Your task to perform on an android device: Clear all items from cart on bestbuy.com. Search for energizer triple a on bestbuy.com, select the first entry, add it to the cart, then select checkout. Image 0: 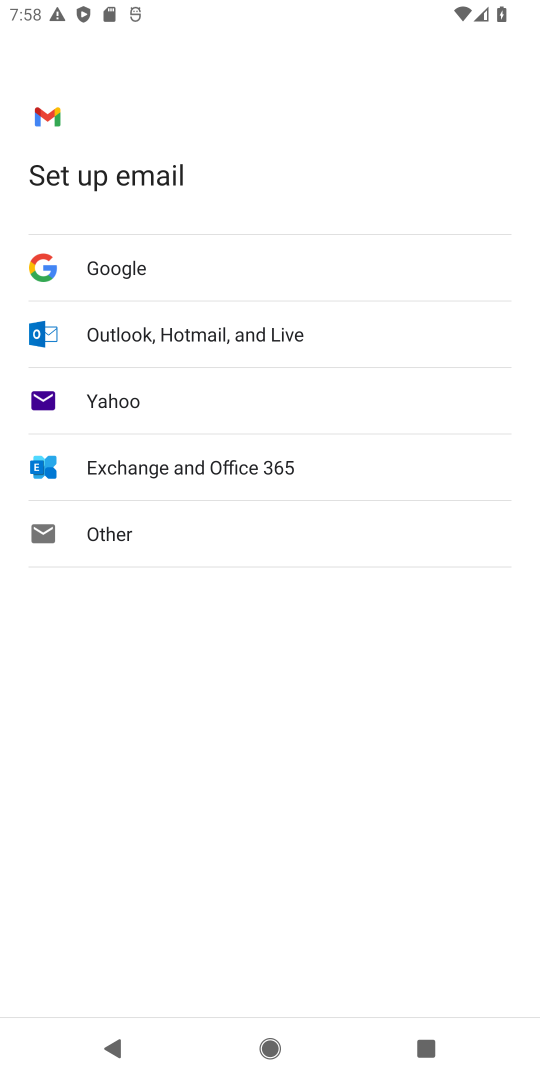
Step 0: press home button
Your task to perform on an android device: Clear all items from cart on bestbuy.com. Search for energizer triple a on bestbuy.com, select the first entry, add it to the cart, then select checkout. Image 1: 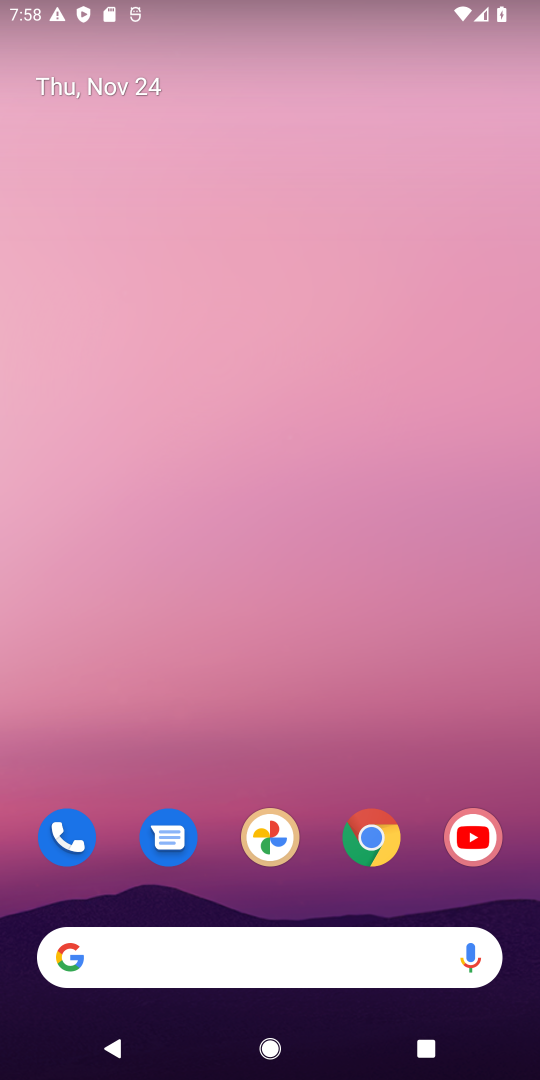
Step 1: click (387, 820)
Your task to perform on an android device: Clear all items from cart on bestbuy.com. Search for energizer triple a on bestbuy.com, select the first entry, add it to the cart, then select checkout. Image 2: 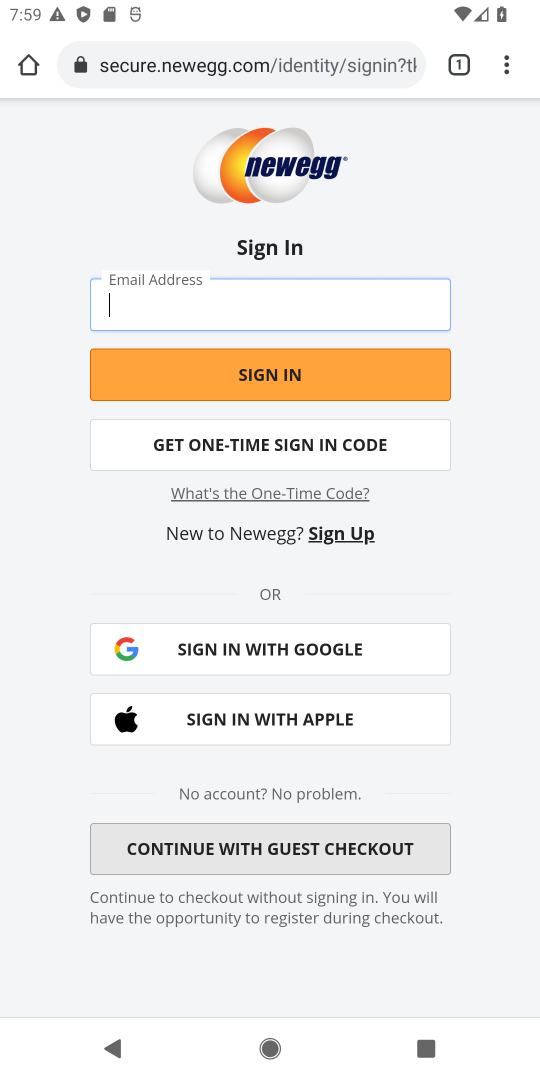
Step 2: press home button
Your task to perform on an android device: Clear all items from cart on bestbuy.com. Search for energizer triple a on bestbuy.com, select the first entry, add it to the cart, then select checkout. Image 3: 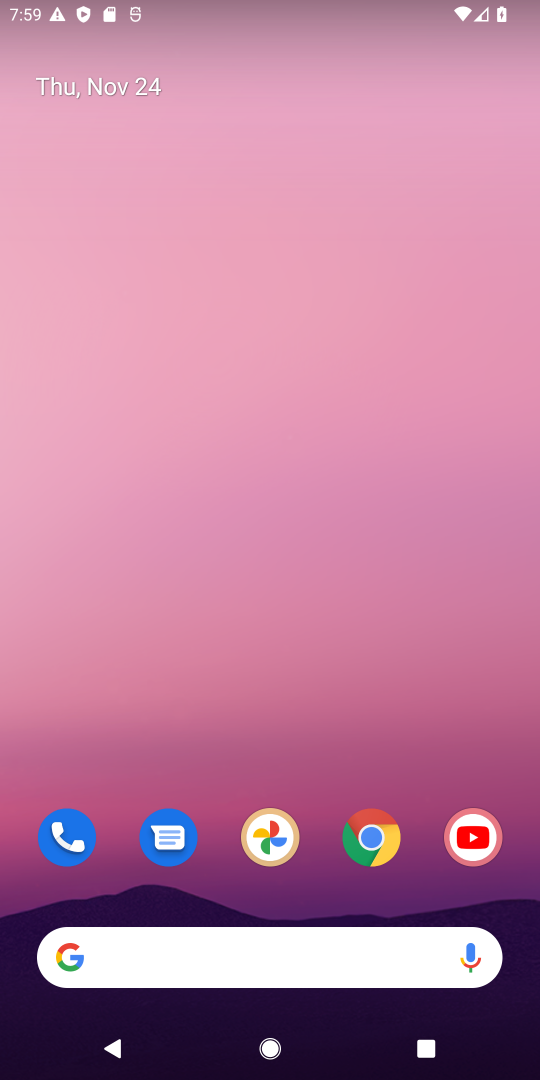
Step 3: click (376, 835)
Your task to perform on an android device: Clear all items from cart on bestbuy.com. Search for energizer triple a on bestbuy.com, select the first entry, add it to the cart, then select checkout. Image 4: 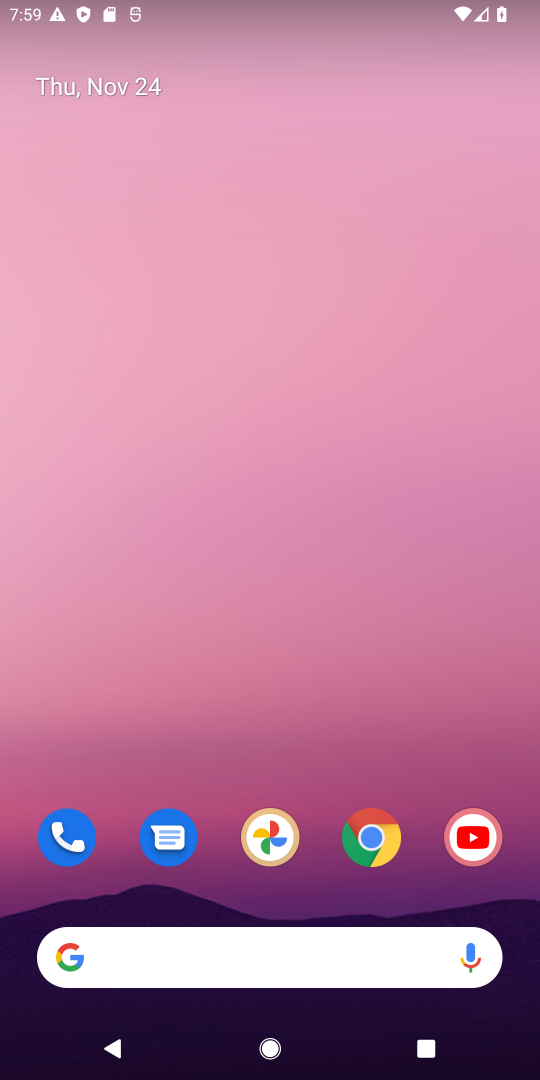
Step 4: click (376, 825)
Your task to perform on an android device: Clear all items from cart on bestbuy.com. Search for energizer triple a on bestbuy.com, select the first entry, add it to the cart, then select checkout. Image 5: 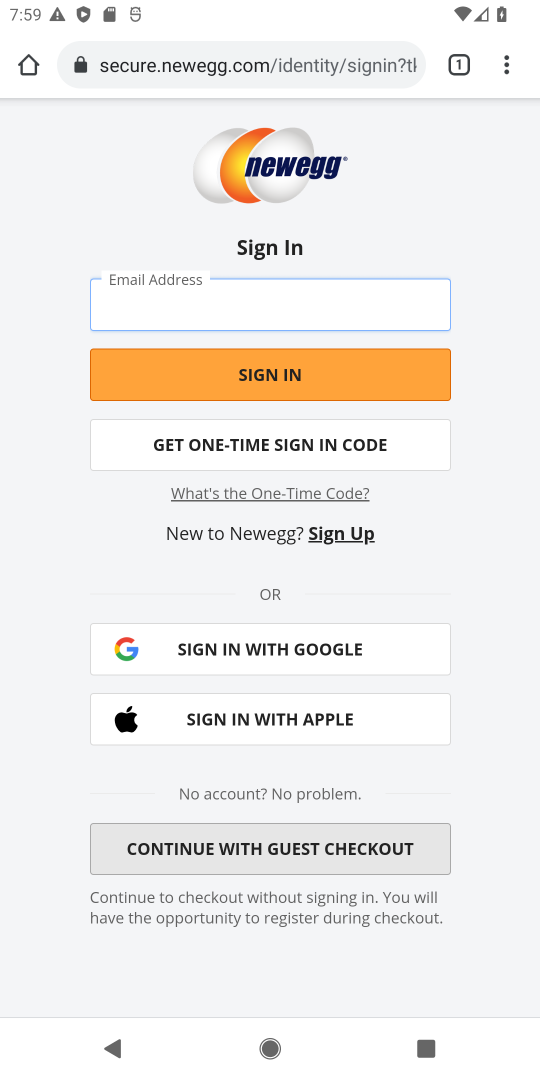
Step 5: click (271, 59)
Your task to perform on an android device: Clear all items from cart on bestbuy.com. Search for energizer triple a on bestbuy.com, select the first entry, add it to the cart, then select checkout. Image 6: 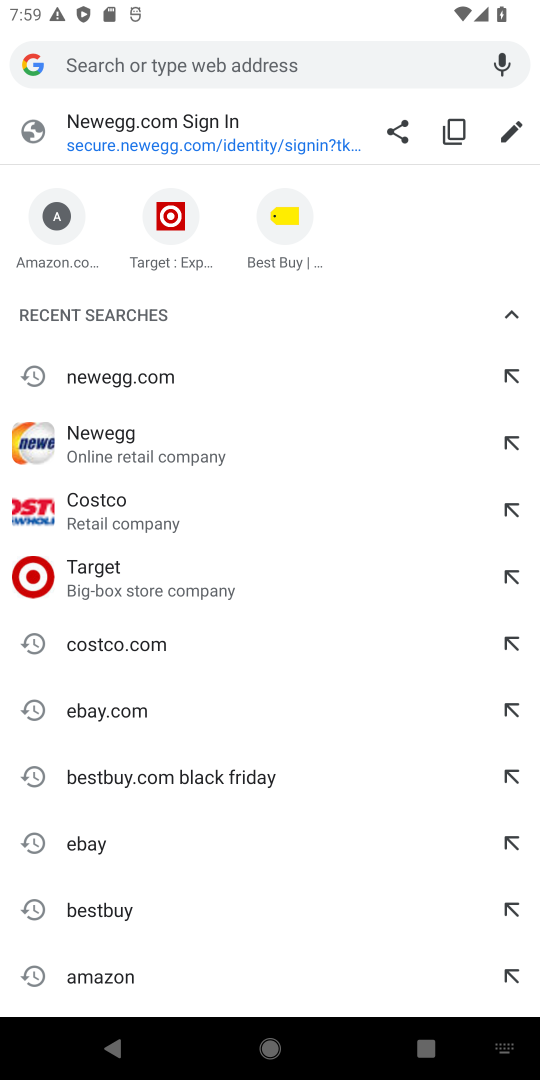
Step 6: type "bestbuy.com"
Your task to perform on an android device: Clear all items from cart on bestbuy.com. Search for energizer triple a on bestbuy.com, select the first entry, add it to the cart, then select checkout. Image 7: 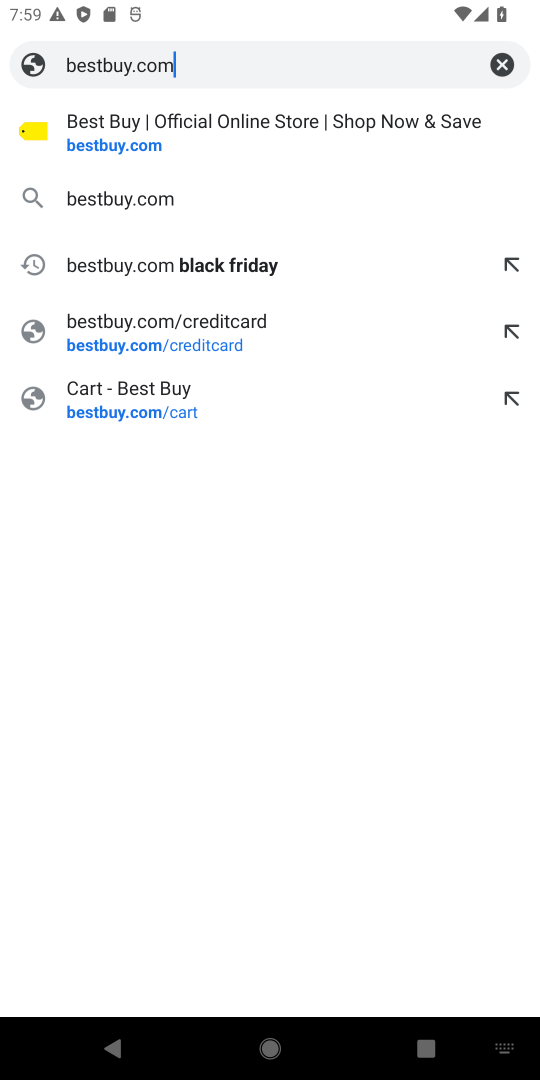
Step 7: click (177, 139)
Your task to perform on an android device: Clear all items from cart on bestbuy.com. Search for energizer triple a on bestbuy.com, select the first entry, add it to the cart, then select checkout. Image 8: 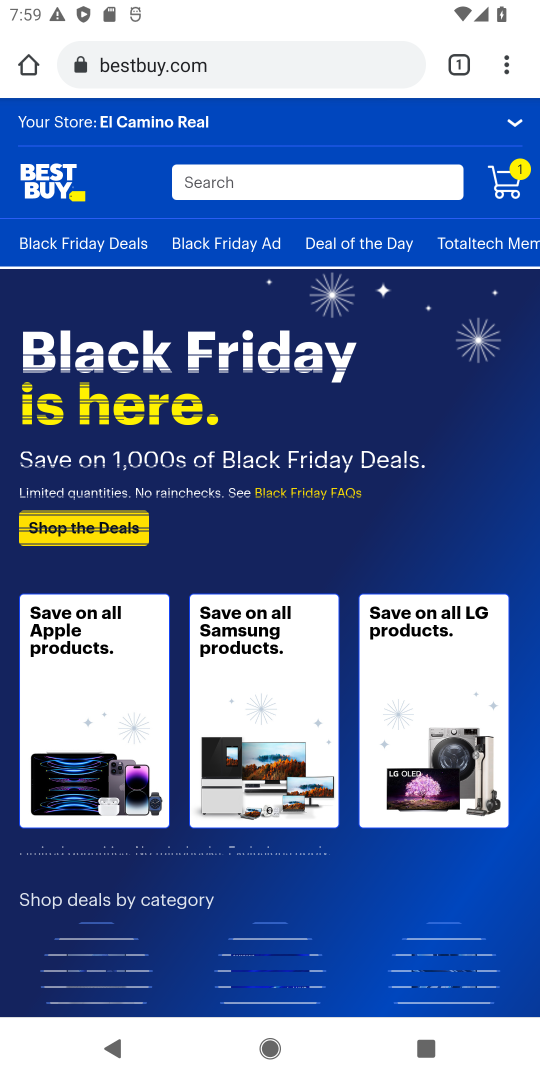
Step 8: click (304, 182)
Your task to perform on an android device: Clear all items from cart on bestbuy.com. Search for energizer triple a on bestbuy.com, select the first entry, add it to the cart, then select checkout. Image 9: 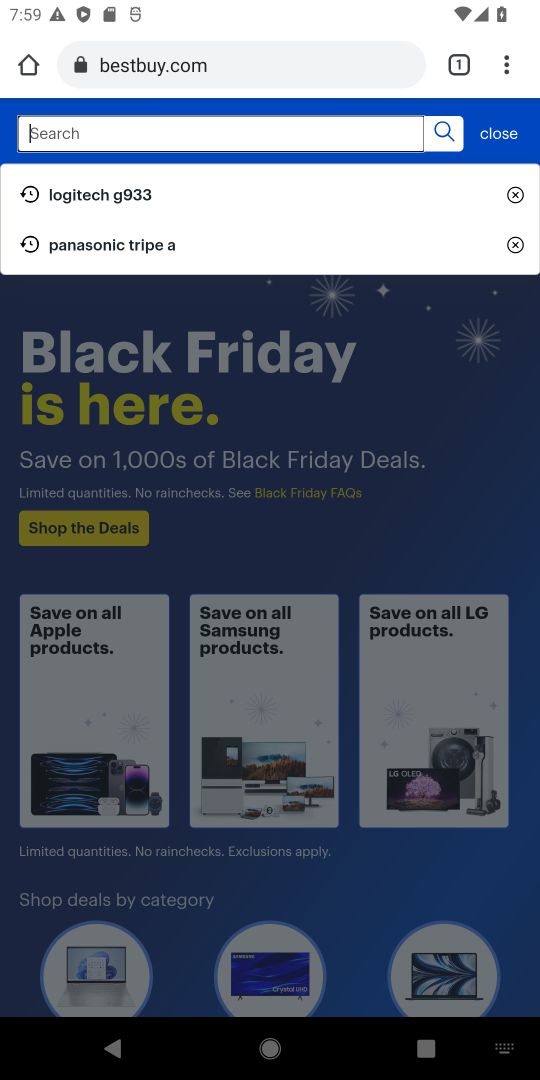
Step 9: type "energizer triple a"
Your task to perform on an android device: Clear all items from cart on bestbuy.com. Search for energizer triple a on bestbuy.com, select the first entry, add it to the cart, then select checkout. Image 10: 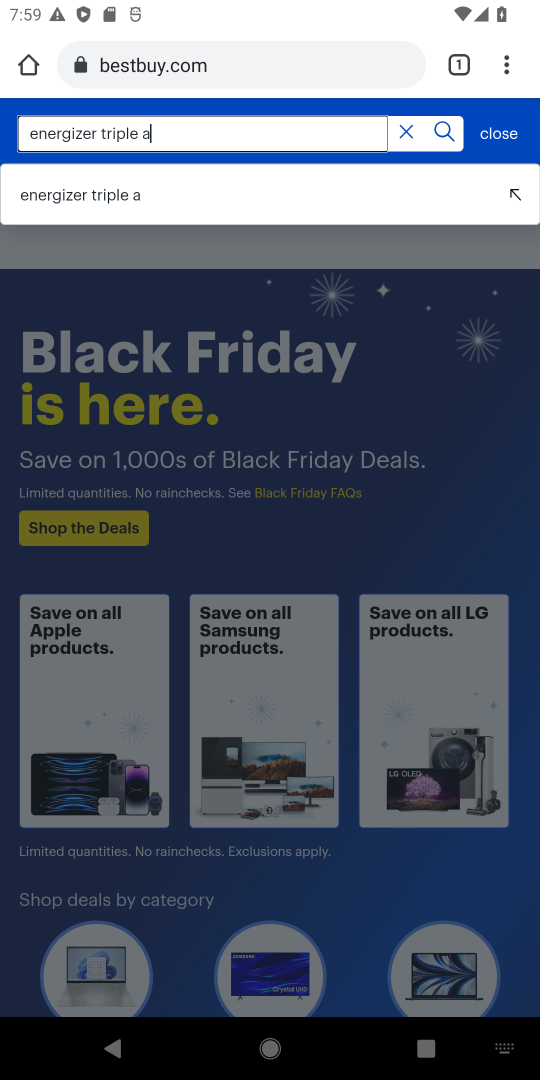
Step 10: click (441, 134)
Your task to perform on an android device: Clear all items from cart on bestbuy.com. Search for energizer triple a on bestbuy.com, select the first entry, add it to the cart, then select checkout. Image 11: 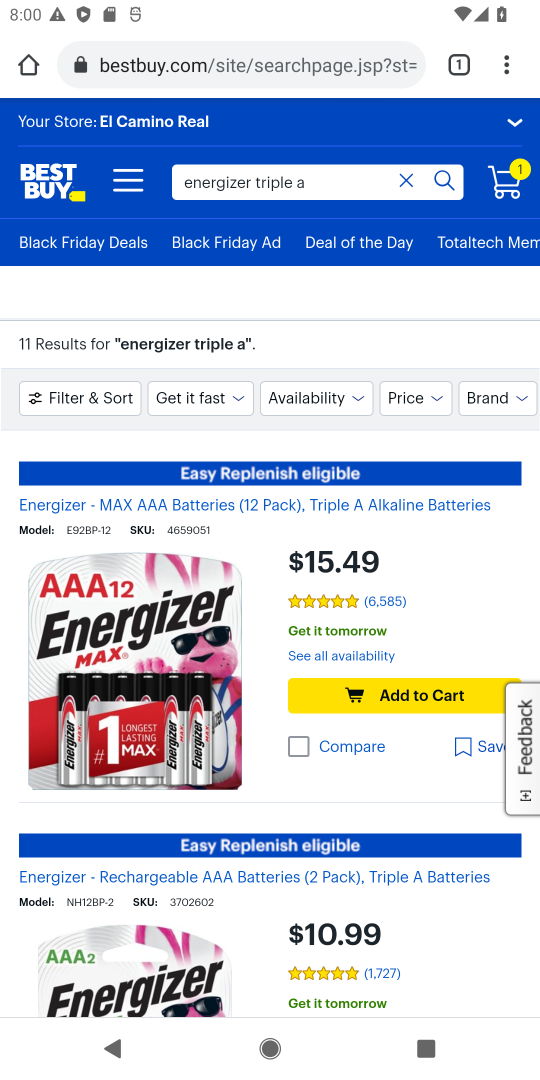
Step 11: click (402, 687)
Your task to perform on an android device: Clear all items from cart on bestbuy.com. Search for energizer triple a on bestbuy.com, select the first entry, add it to the cart, then select checkout. Image 12: 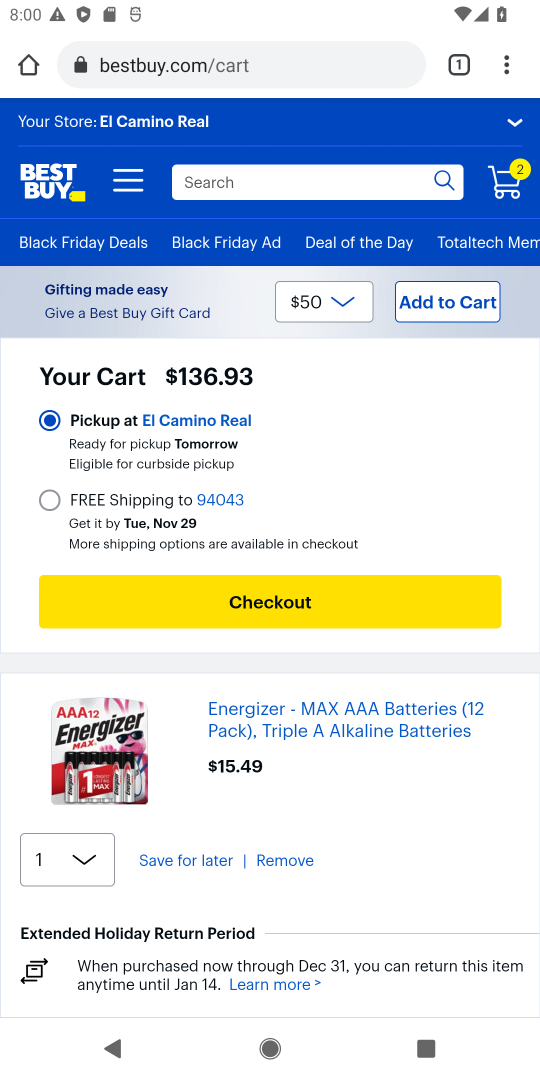
Step 12: click (315, 601)
Your task to perform on an android device: Clear all items from cart on bestbuy.com. Search for energizer triple a on bestbuy.com, select the first entry, add it to the cart, then select checkout. Image 13: 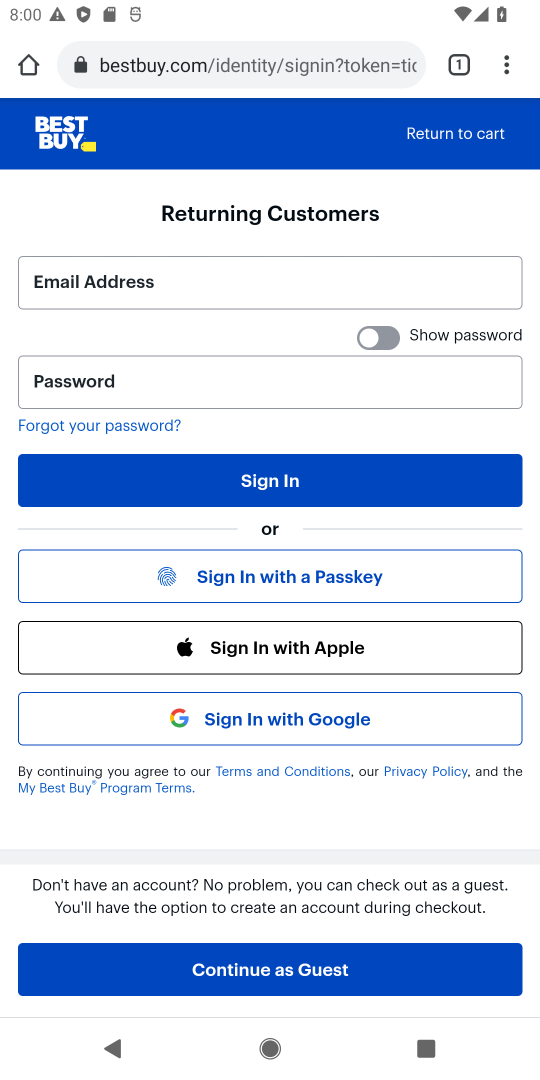
Step 13: task complete